Your task to perform on an android device: Open Google Maps Image 0: 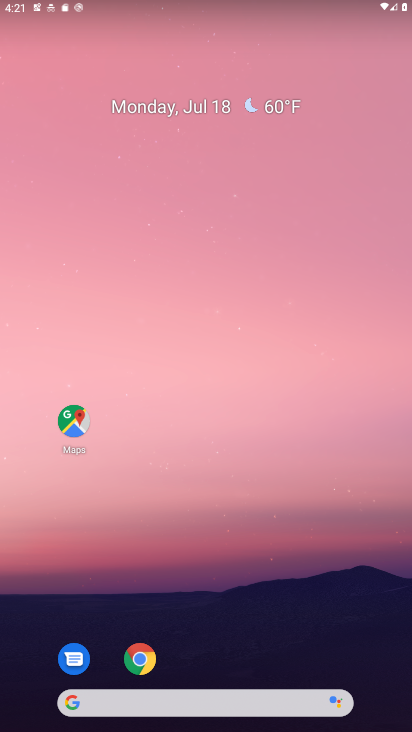
Step 0: drag from (211, 712) to (269, 2)
Your task to perform on an android device: Open Google Maps Image 1: 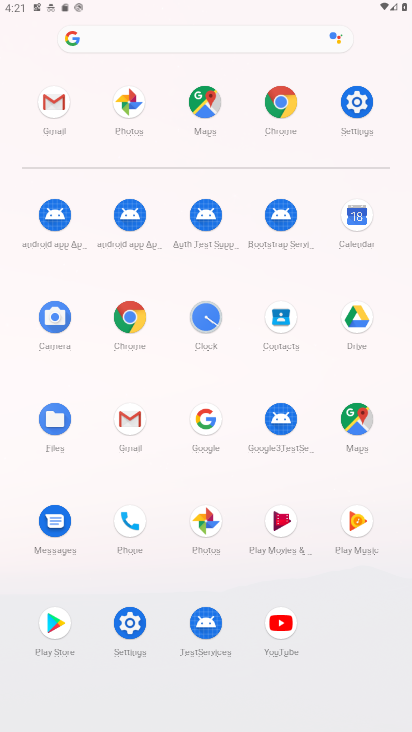
Step 1: click (365, 435)
Your task to perform on an android device: Open Google Maps Image 2: 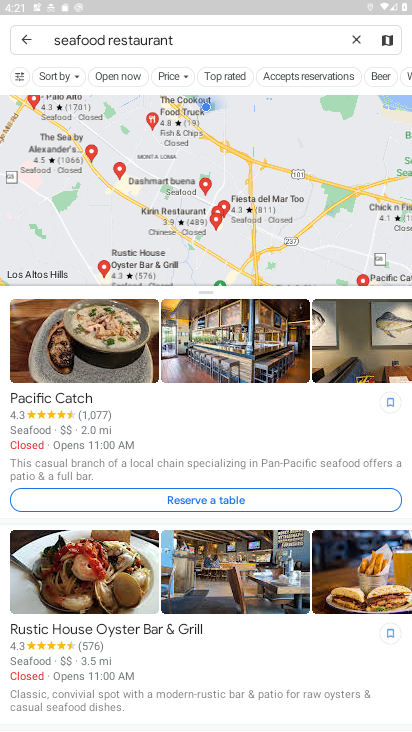
Step 2: task complete